Your task to perform on an android device: Do I have any events tomorrow? Image 0: 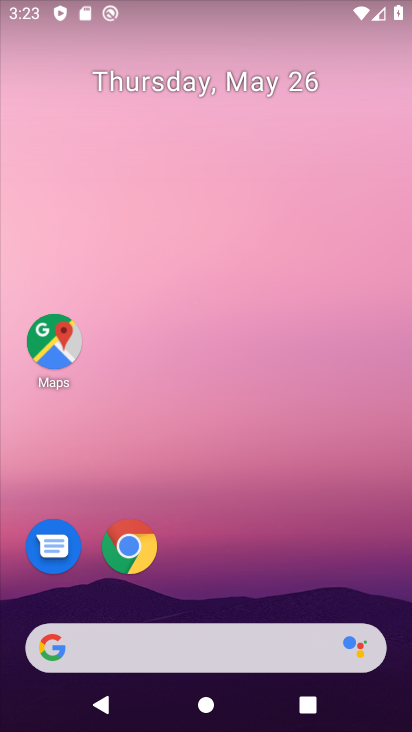
Step 0: click (232, 71)
Your task to perform on an android device: Do I have any events tomorrow? Image 1: 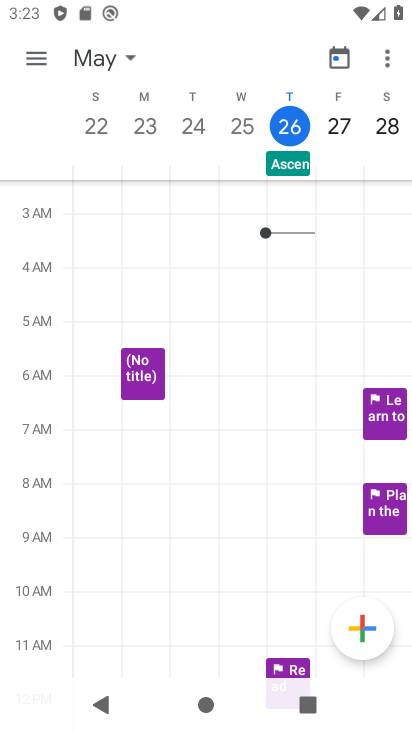
Step 1: drag from (40, 441) to (45, 160)
Your task to perform on an android device: Do I have any events tomorrow? Image 2: 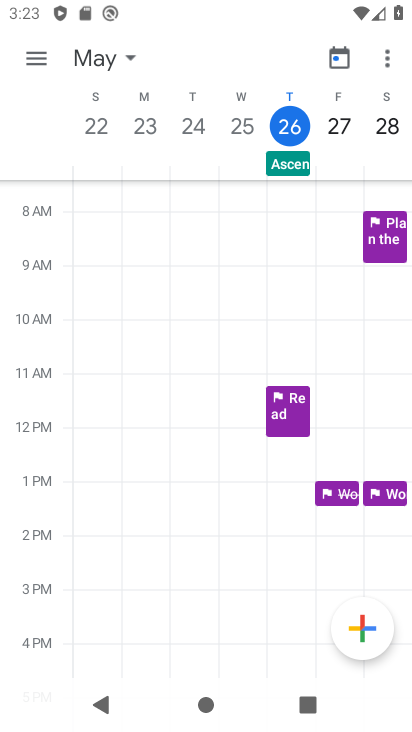
Step 2: drag from (45, 240) to (29, 721)
Your task to perform on an android device: Do I have any events tomorrow? Image 3: 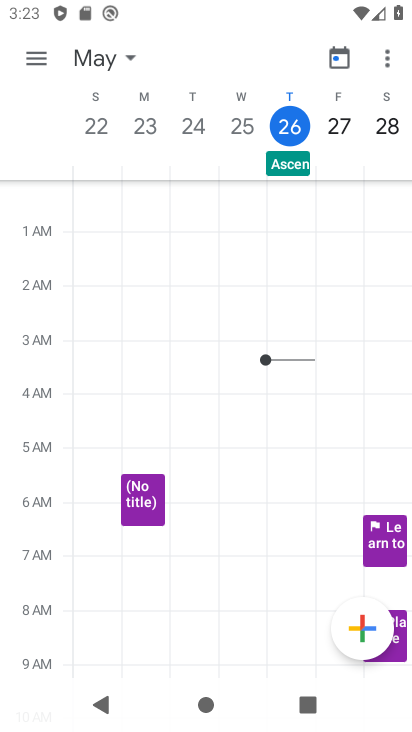
Step 3: drag from (36, 619) to (63, 145)
Your task to perform on an android device: Do I have any events tomorrow? Image 4: 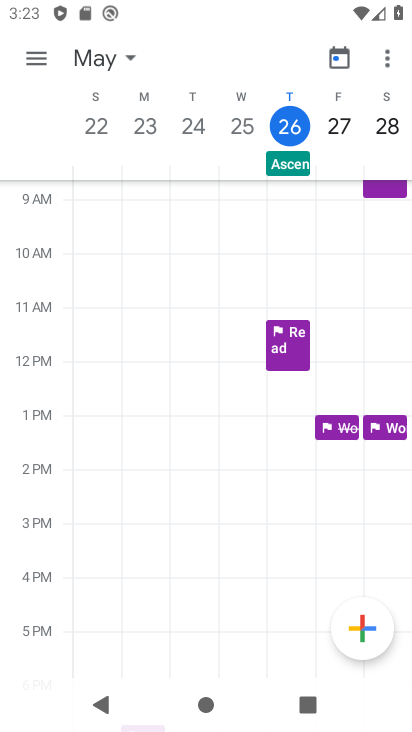
Step 4: click (51, 186)
Your task to perform on an android device: Do I have any events tomorrow? Image 5: 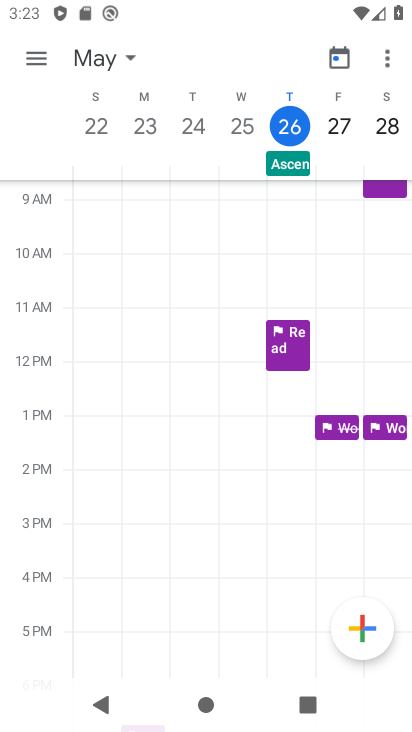
Step 5: task complete